Your task to perform on an android device: Play the last video I watched on Youtube Image 0: 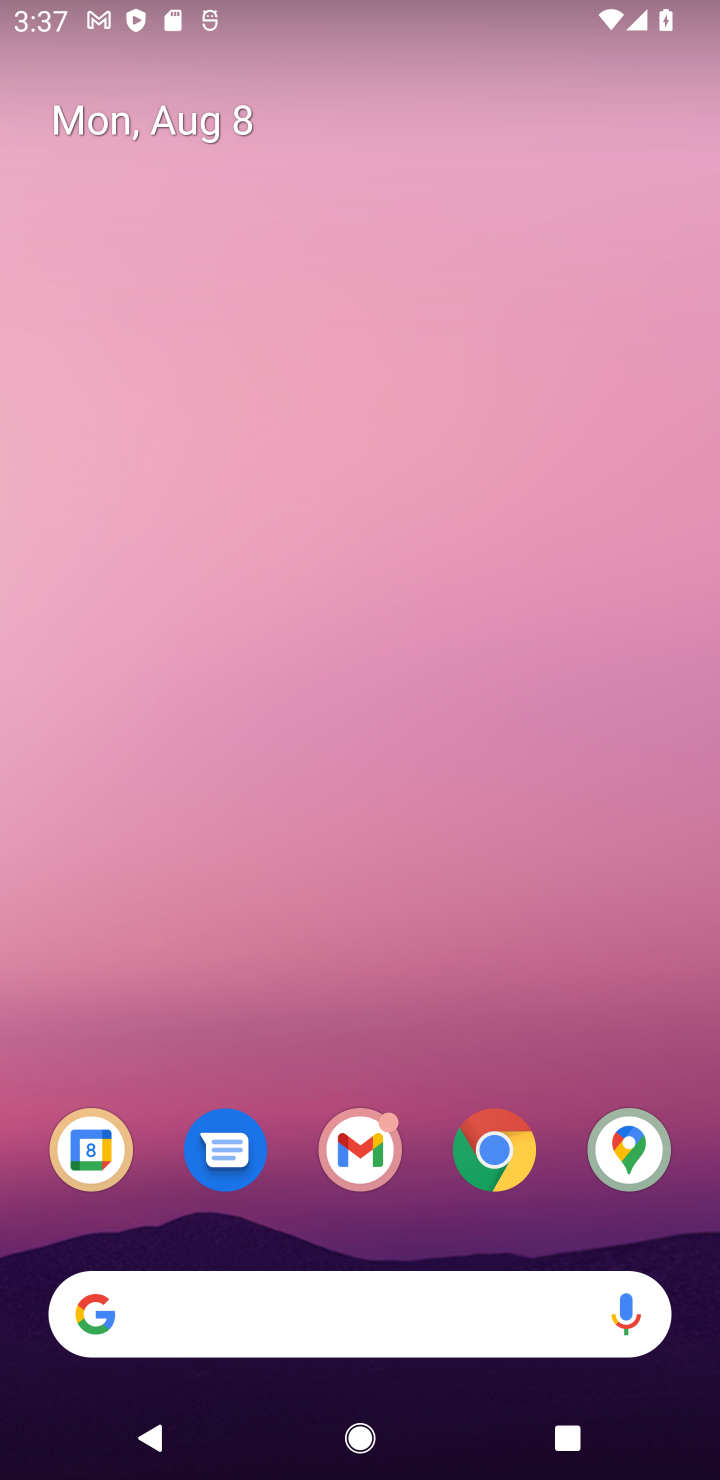
Step 0: drag from (437, 1244) to (318, 7)
Your task to perform on an android device: Play the last video I watched on Youtube Image 1: 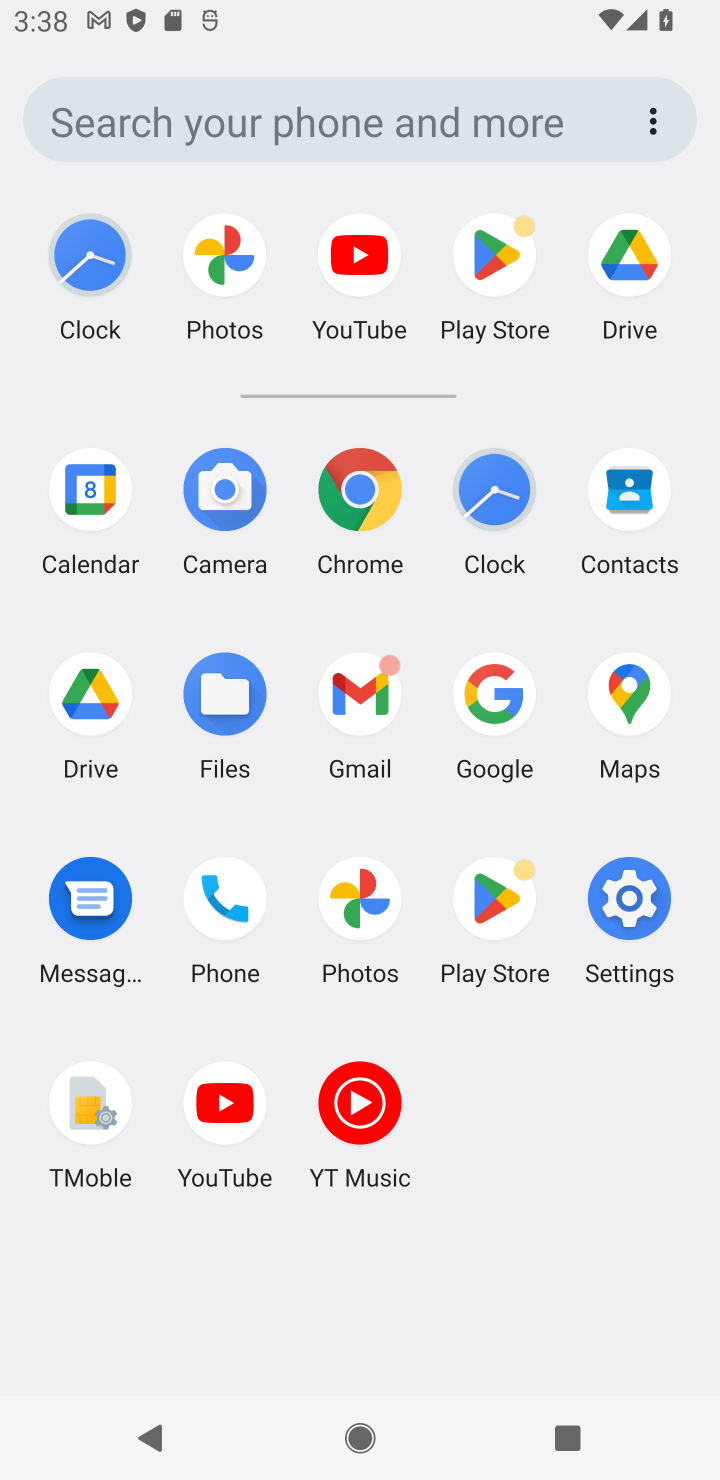
Step 1: click (234, 1117)
Your task to perform on an android device: Play the last video I watched on Youtube Image 2: 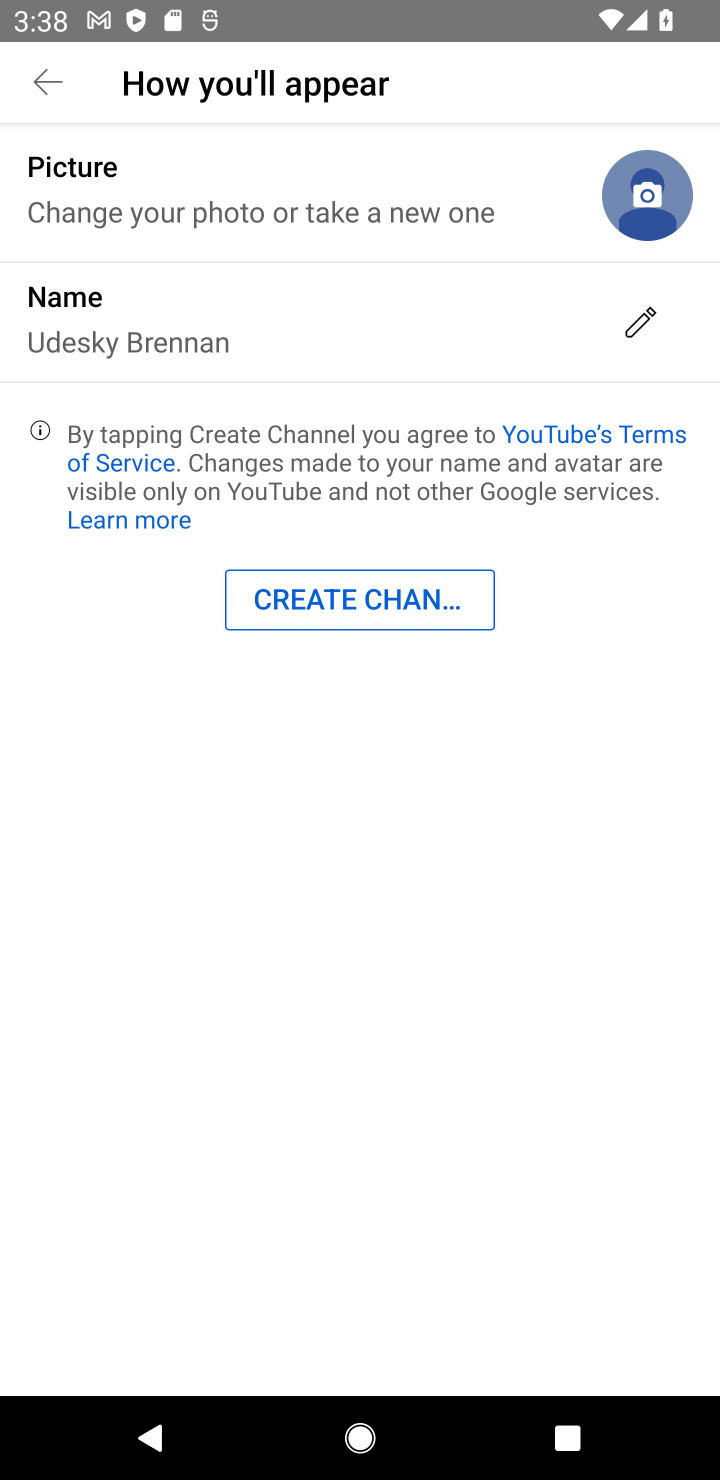
Step 2: task complete